Your task to perform on an android device: open app "Pinterest" Image 0: 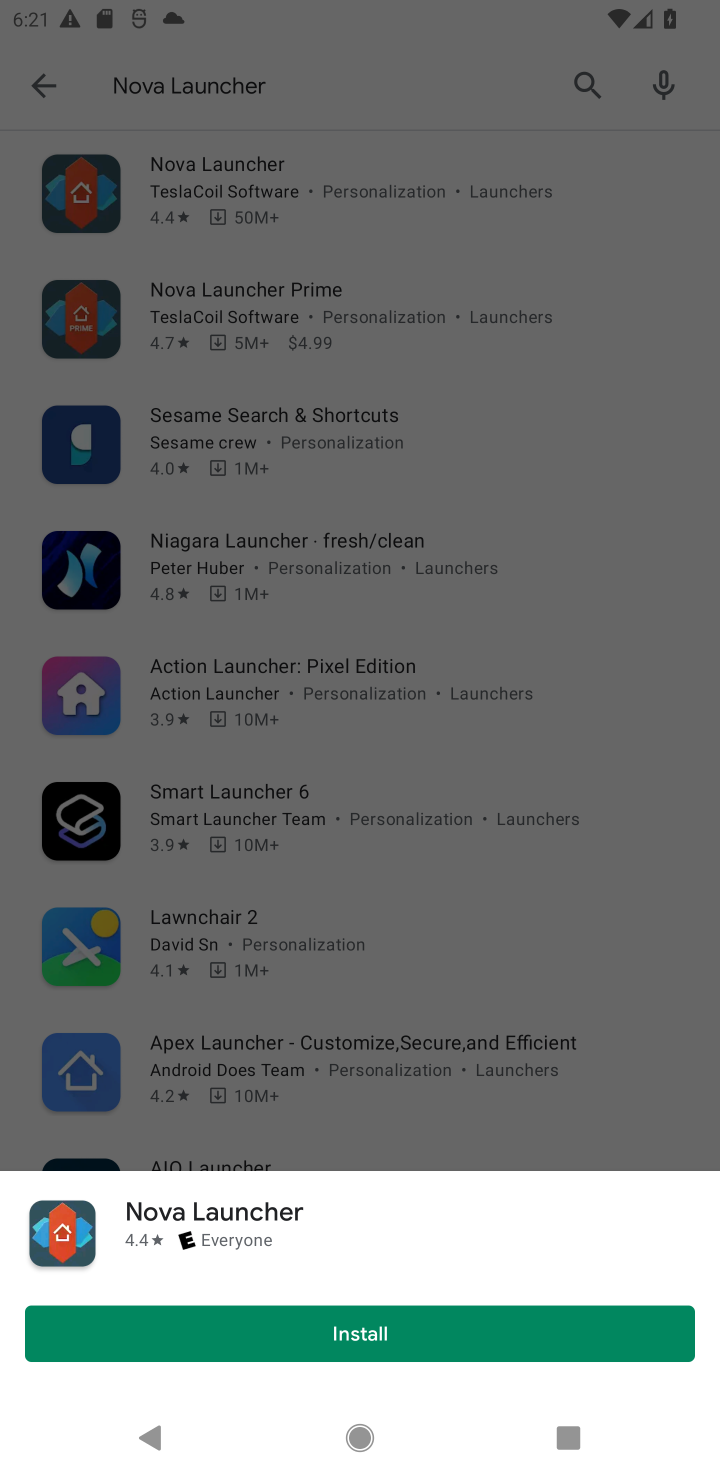
Step 0: task impossible